Your task to perform on an android device: toggle data saver in the chrome app Image 0: 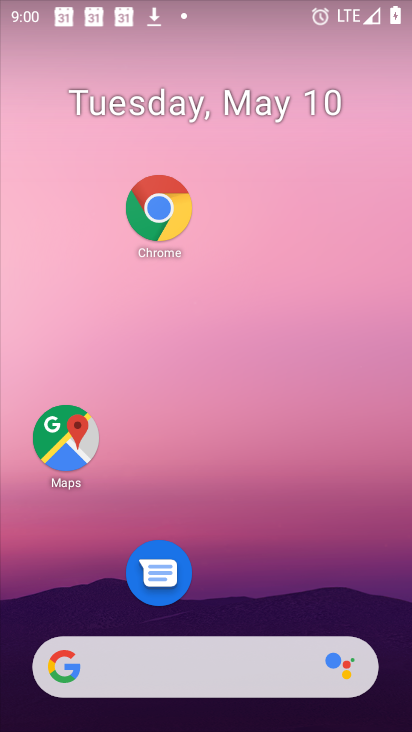
Step 0: drag from (271, 619) to (217, 173)
Your task to perform on an android device: toggle data saver in the chrome app Image 1: 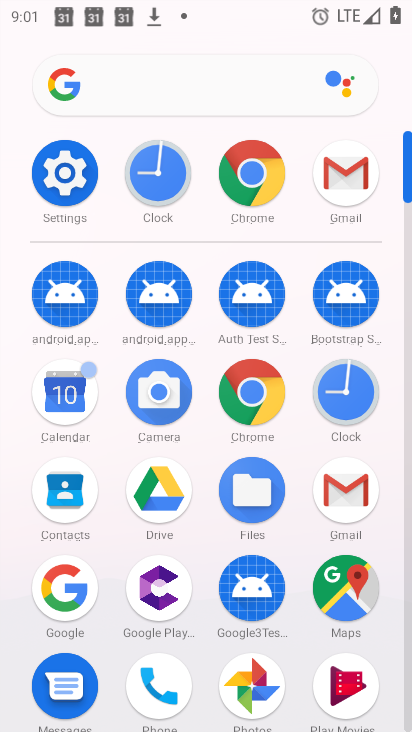
Step 1: click (243, 192)
Your task to perform on an android device: toggle data saver in the chrome app Image 2: 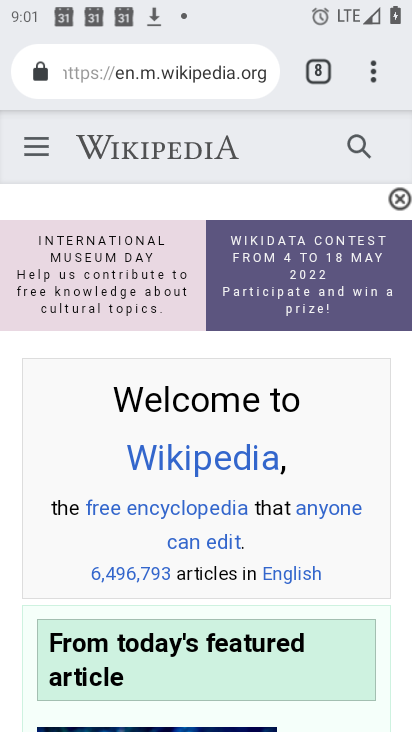
Step 2: click (362, 81)
Your task to perform on an android device: toggle data saver in the chrome app Image 3: 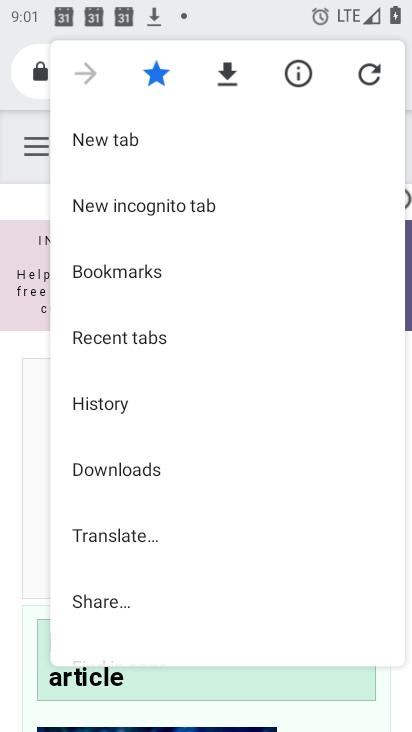
Step 3: drag from (104, 582) to (143, 316)
Your task to perform on an android device: toggle data saver in the chrome app Image 4: 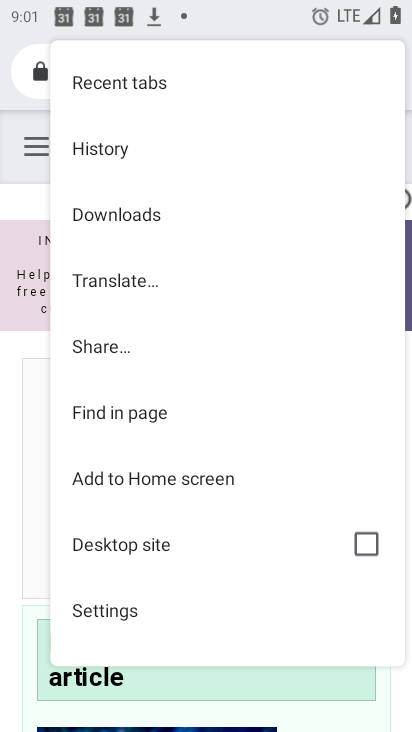
Step 4: drag from (151, 577) to (213, 383)
Your task to perform on an android device: toggle data saver in the chrome app Image 5: 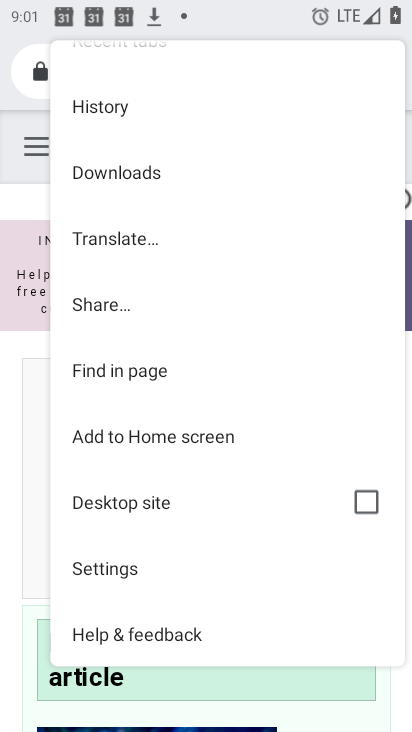
Step 5: click (129, 566)
Your task to perform on an android device: toggle data saver in the chrome app Image 6: 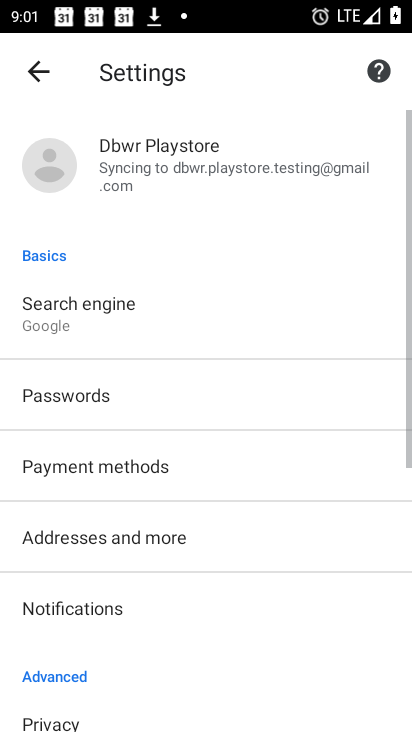
Step 6: drag from (215, 644) to (215, 424)
Your task to perform on an android device: toggle data saver in the chrome app Image 7: 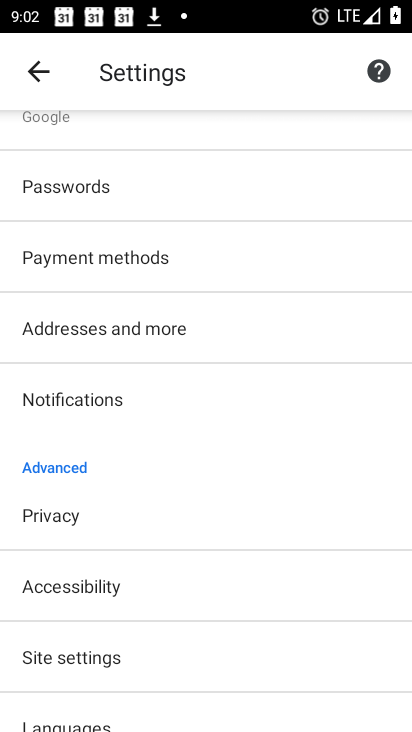
Step 7: drag from (237, 577) to (291, 280)
Your task to perform on an android device: toggle data saver in the chrome app Image 8: 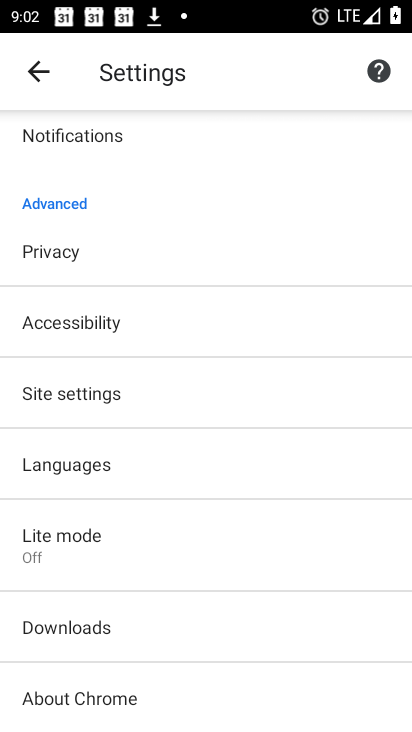
Step 8: drag from (137, 577) to (199, 362)
Your task to perform on an android device: toggle data saver in the chrome app Image 9: 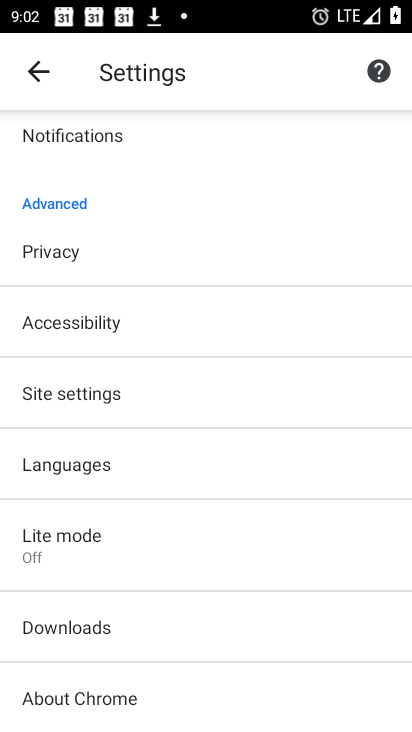
Step 9: click (111, 556)
Your task to perform on an android device: toggle data saver in the chrome app Image 10: 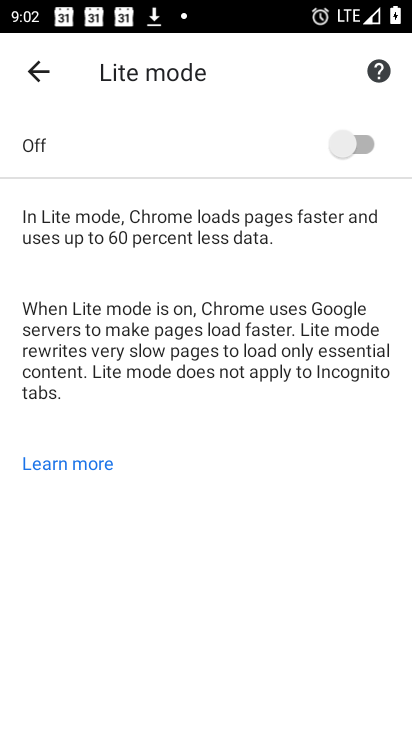
Step 10: task complete